Your task to perform on an android device: Search for sushi restaurants on Maps Image 0: 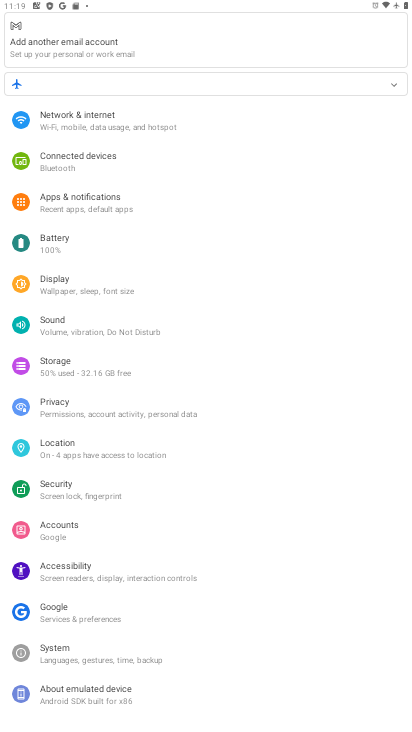
Step 0: press home button
Your task to perform on an android device: Search for sushi restaurants on Maps Image 1: 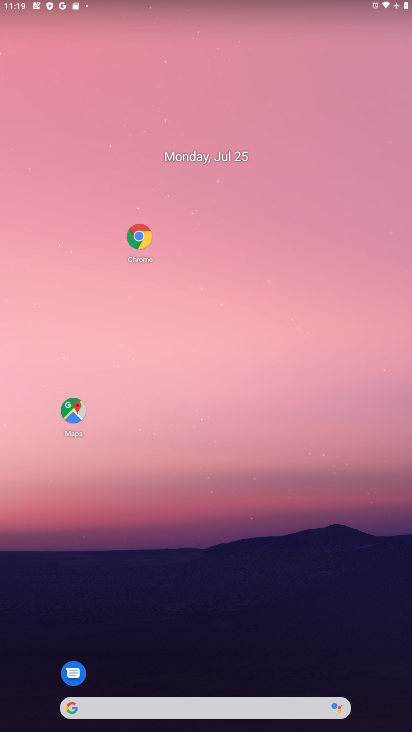
Step 1: click (75, 421)
Your task to perform on an android device: Search for sushi restaurants on Maps Image 2: 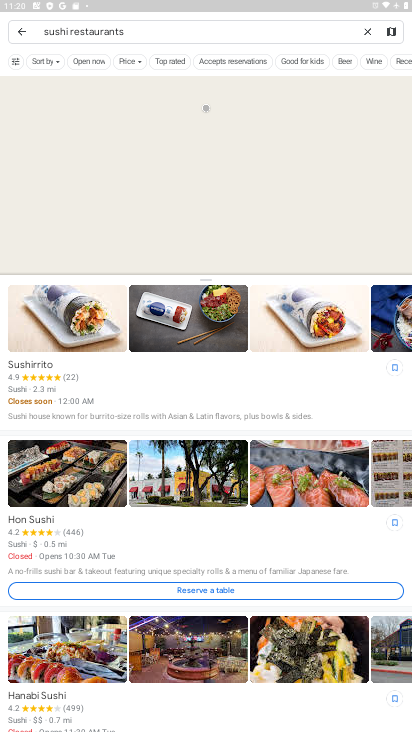
Step 2: click (365, 28)
Your task to perform on an android device: Search for sushi restaurants on Maps Image 3: 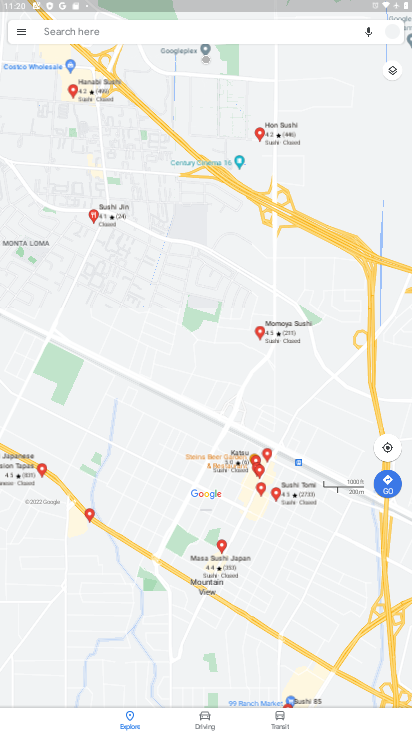
Step 3: task complete